Your task to perform on an android device: Go to settings Image 0: 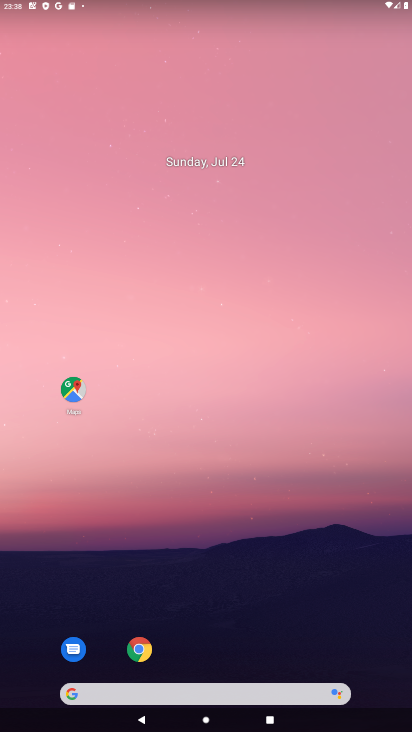
Step 0: press home button
Your task to perform on an android device: Go to settings Image 1: 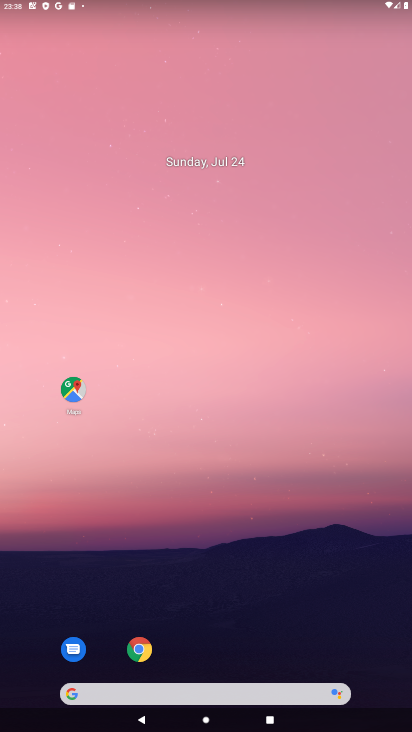
Step 1: drag from (201, 656) to (267, 48)
Your task to perform on an android device: Go to settings Image 2: 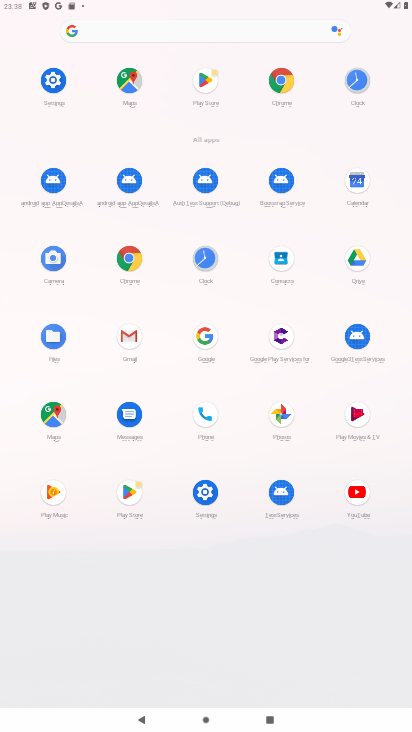
Step 2: click (203, 486)
Your task to perform on an android device: Go to settings Image 3: 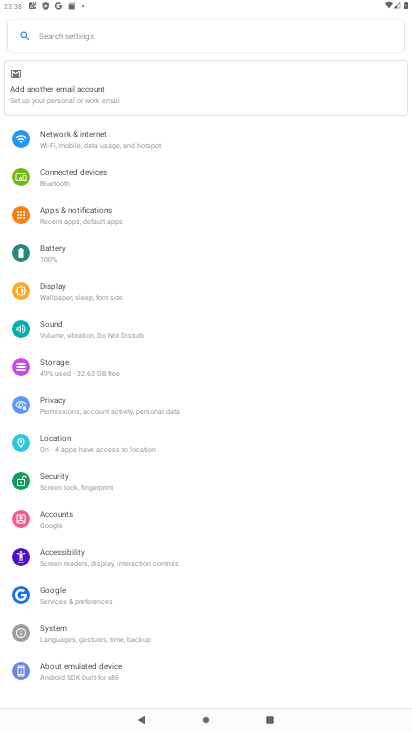
Step 3: task complete